Your task to perform on an android device: check out phone information Image 0: 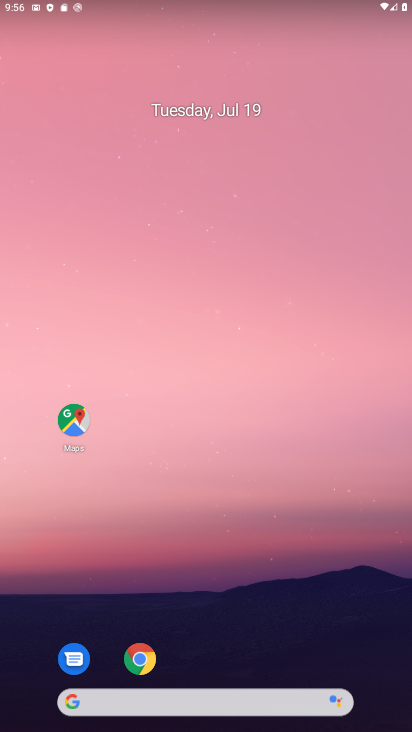
Step 0: drag from (250, 667) to (288, 304)
Your task to perform on an android device: check out phone information Image 1: 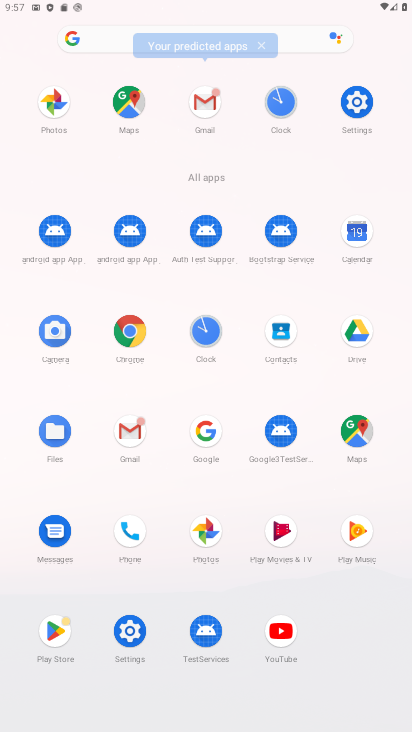
Step 1: click (128, 631)
Your task to perform on an android device: check out phone information Image 2: 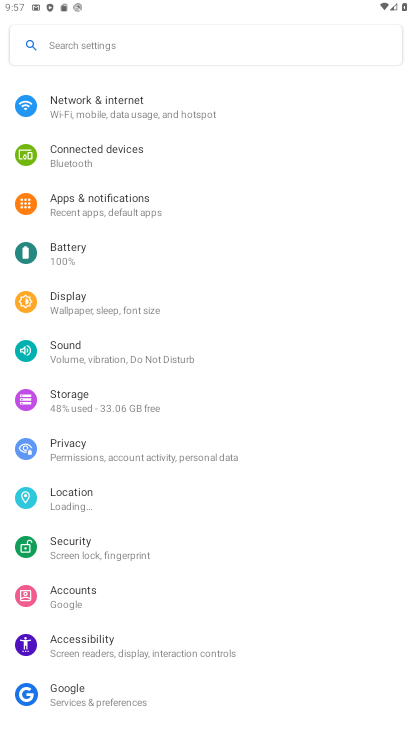
Step 2: task complete